Your task to perform on an android device: turn off data saver in the chrome app Image 0: 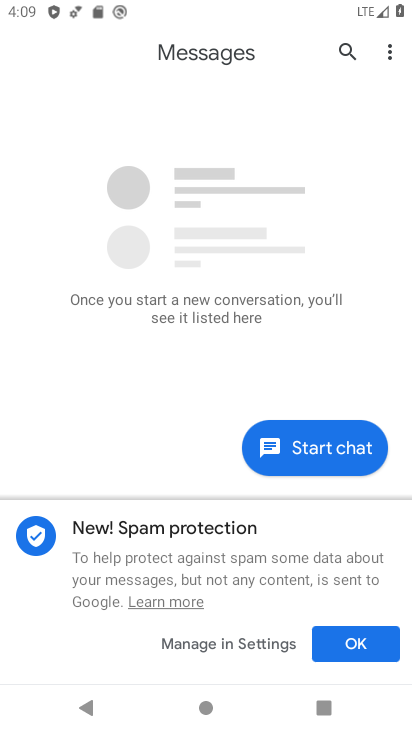
Step 0: press back button
Your task to perform on an android device: turn off data saver in the chrome app Image 1: 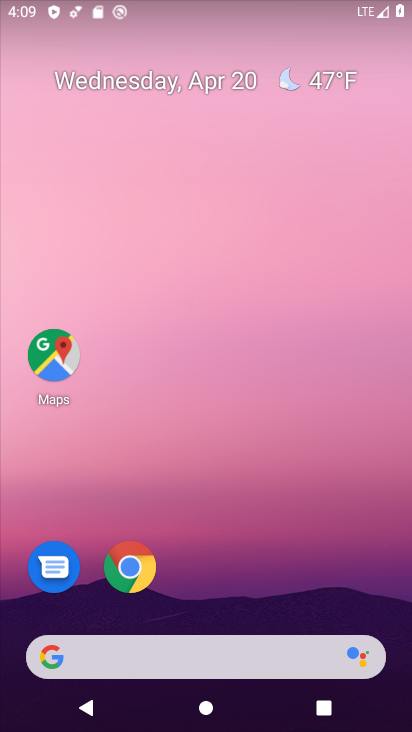
Step 1: drag from (308, 551) to (279, 37)
Your task to perform on an android device: turn off data saver in the chrome app Image 2: 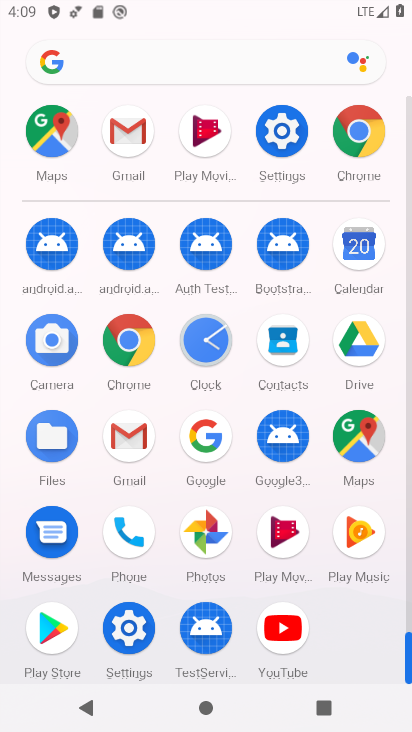
Step 2: drag from (3, 457) to (0, 233)
Your task to perform on an android device: turn off data saver in the chrome app Image 3: 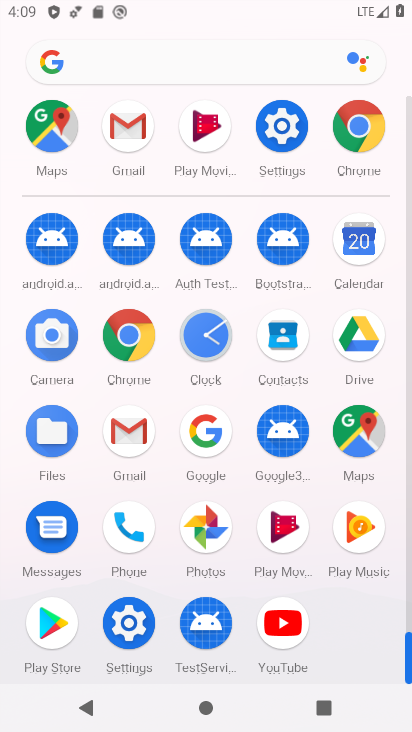
Step 3: click (129, 334)
Your task to perform on an android device: turn off data saver in the chrome app Image 4: 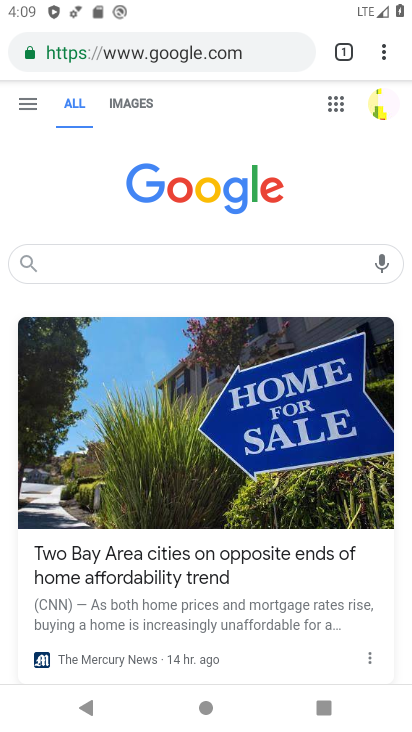
Step 4: drag from (386, 57) to (209, 605)
Your task to perform on an android device: turn off data saver in the chrome app Image 5: 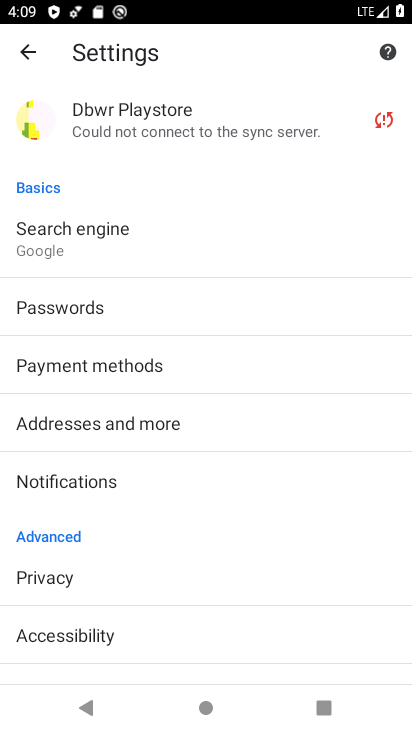
Step 5: drag from (224, 590) to (226, 265)
Your task to perform on an android device: turn off data saver in the chrome app Image 6: 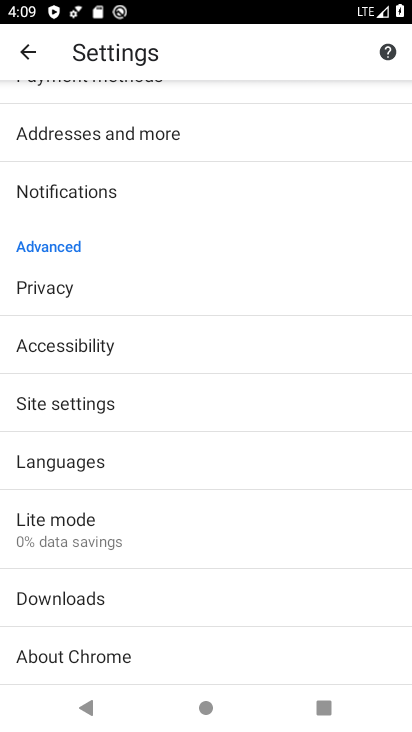
Step 6: click (118, 399)
Your task to perform on an android device: turn off data saver in the chrome app Image 7: 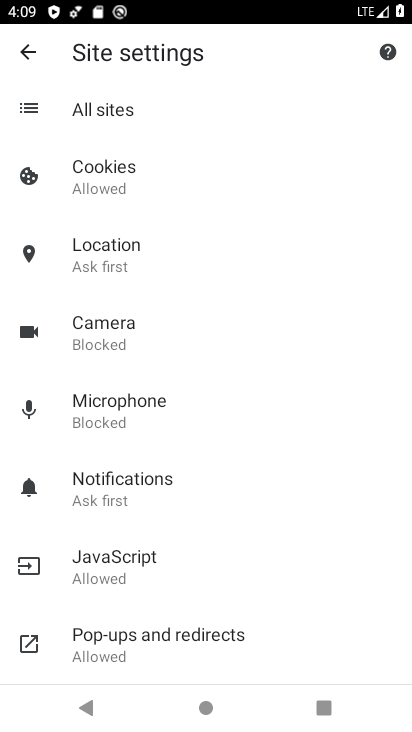
Step 7: drag from (188, 554) to (204, 255)
Your task to perform on an android device: turn off data saver in the chrome app Image 8: 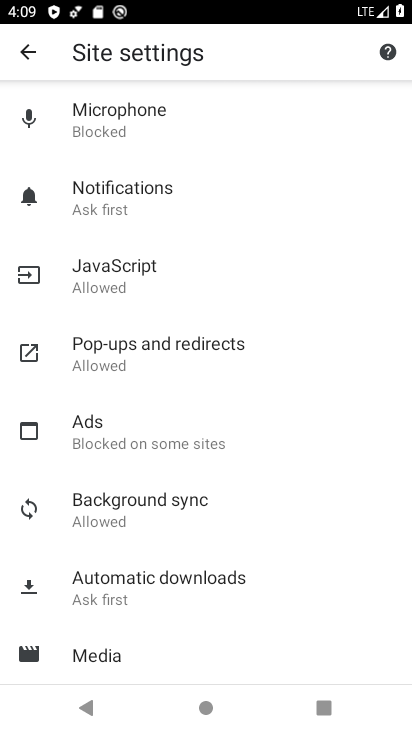
Step 8: drag from (224, 154) to (222, 527)
Your task to perform on an android device: turn off data saver in the chrome app Image 9: 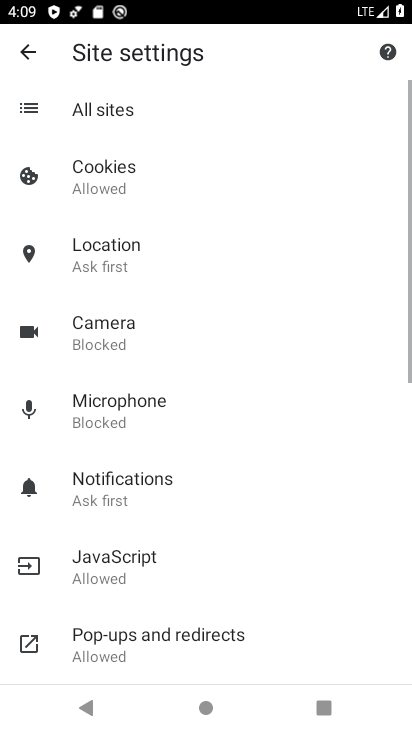
Step 9: drag from (216, 216) to (223, 502)
Your task to perform on an android device: turn off data saver in the chrome app Image 10: 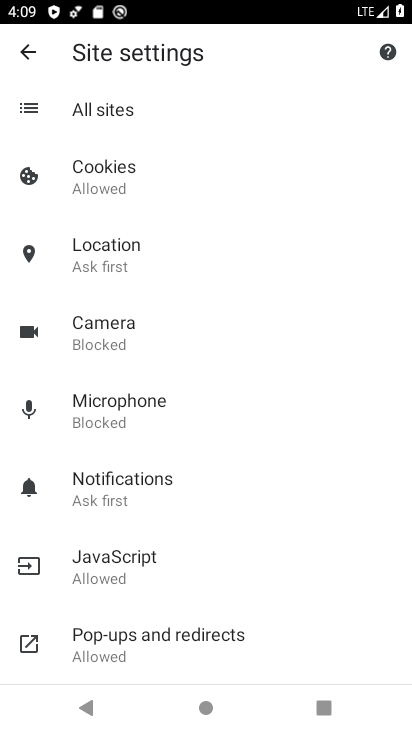
Step 10: click (32, 40)
Your task to perform on an android device: turn off data saver in the chrome app Image 11: 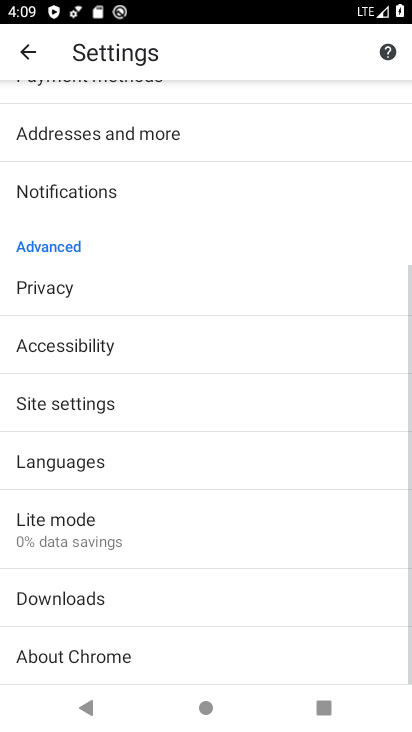
Step 11: click (84, 535)
Your task to perform on an android device: turn off data saver in the chrome app Image 12: 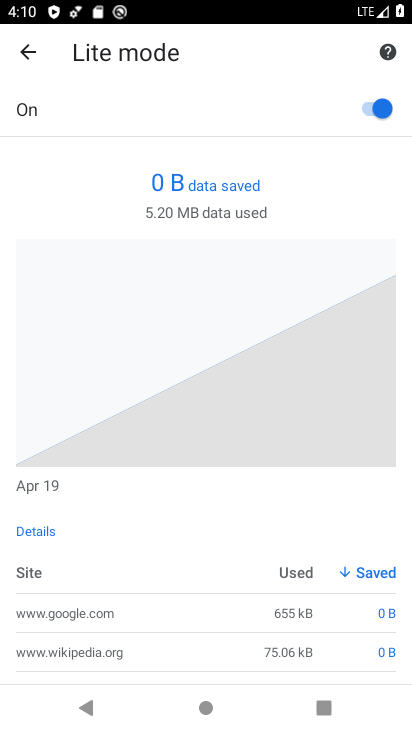
Step 12: click (371, 106)
Your task to perform on an android device: turn off data saver in the chrome app Image 13: 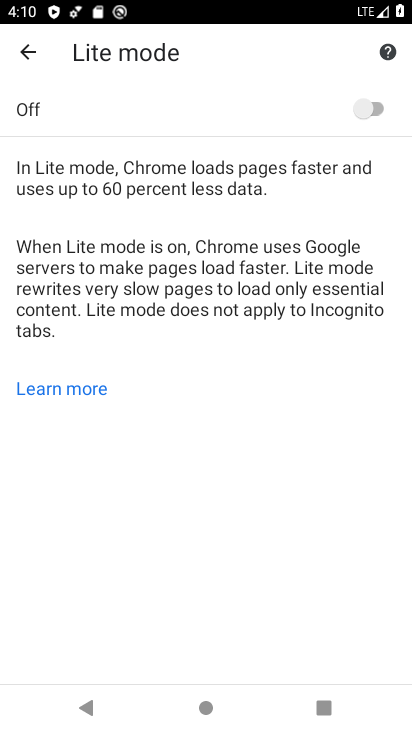
Step 13: task complete